Your task to perform on an android device: Turn on the flashlight Image 0: 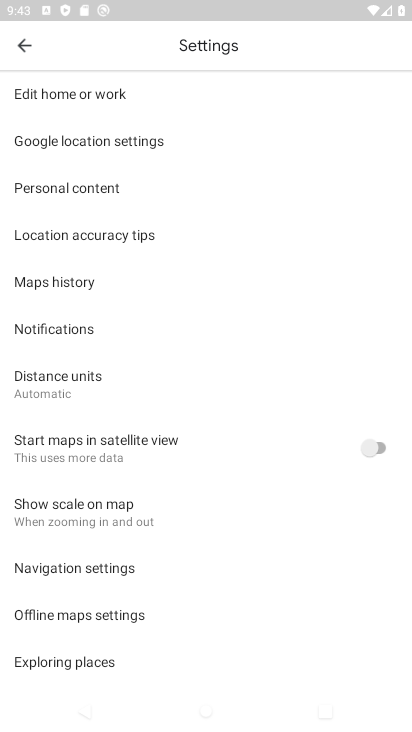
Step 0: press home button
Your task to perform on an android device: Turn on the flashlight Image 1: 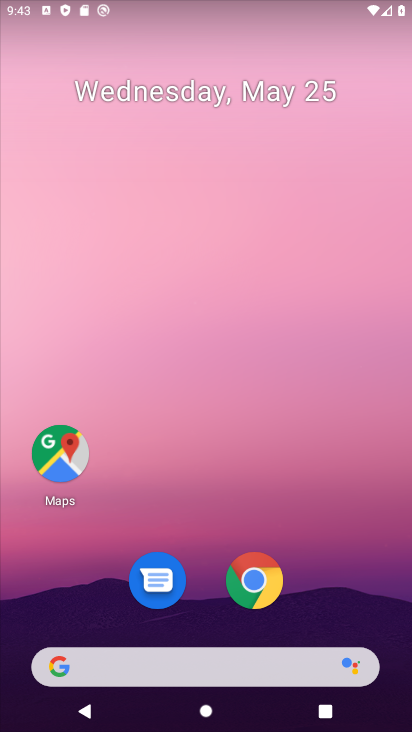
Step 1: drag from (20, 613) to (211, 133)
Your task to perform on an android device: Turn on the flashlight Image 2: 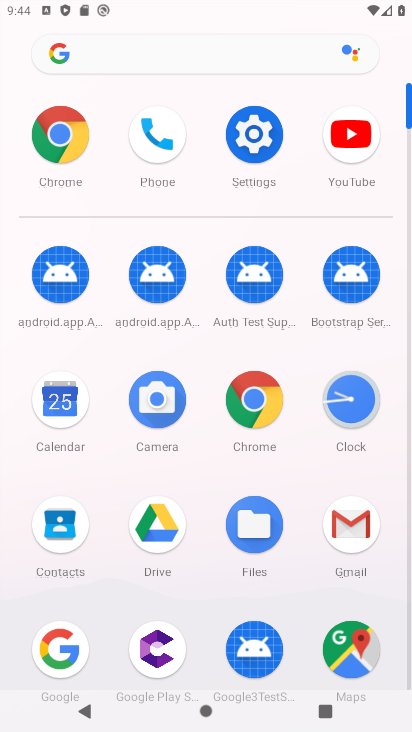
Step 2: click (238, 120)
Your task to perform on an android device: Turn on the flashlight Image 3: 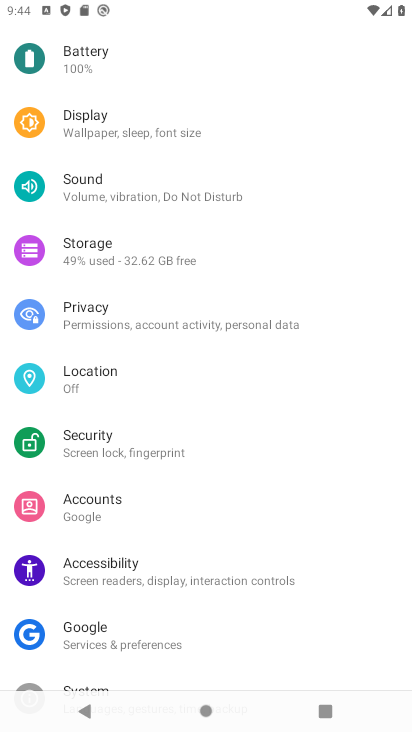
Step 3: task complete